Your task to perform on an android device: Search for sushi restaurants on Maps Image 0: 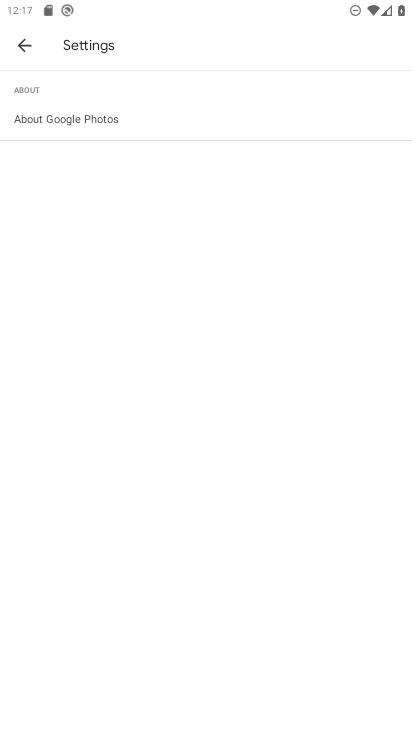
Step 0: click (22, 47)
Your task to perform on an android device: Search for sushi restaurants on Maps Image 1: 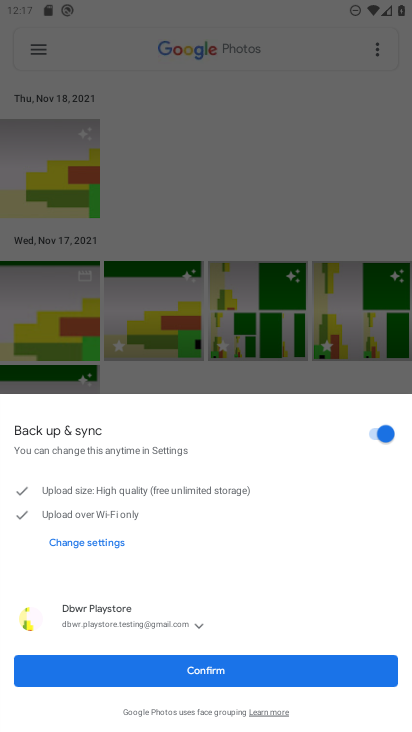
Step 1: press home button
Your task to perform on an android device: Search for sushi restaurants on Maps Image 2: 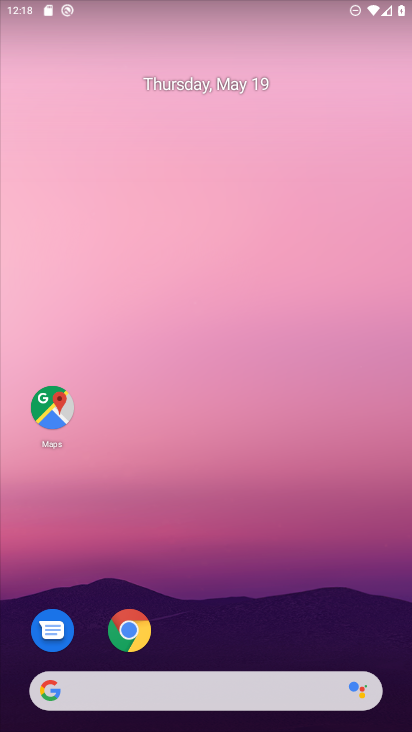
Step 2: drag from (169, 638) to (247, 251)
Your task to perform on an android device: Search for sushi restaurants on Maps Image 3: 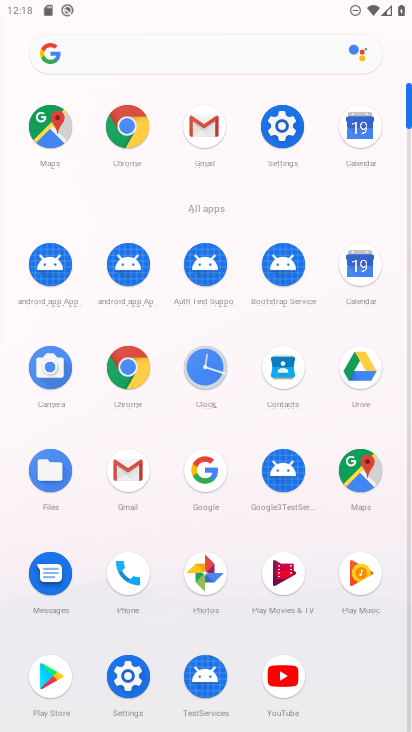
Step 3: click (280, 679)
Your task to perform on an android device: Search for sushi restaurants on Maps Image 4: 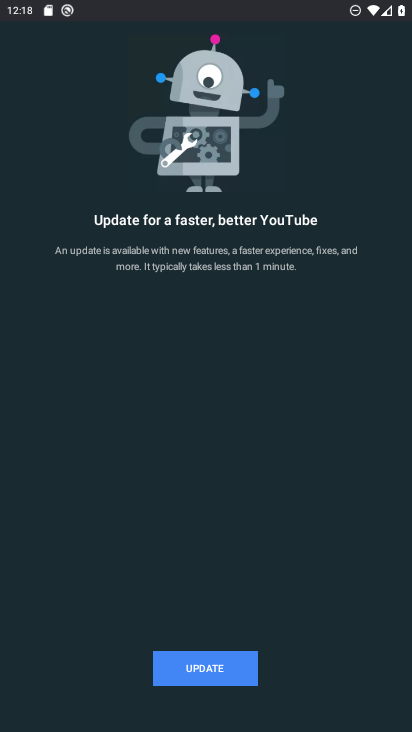
Step 4: press home button
Your task to perform on an android device: Search for sushi restaurants on Maps Image 5: 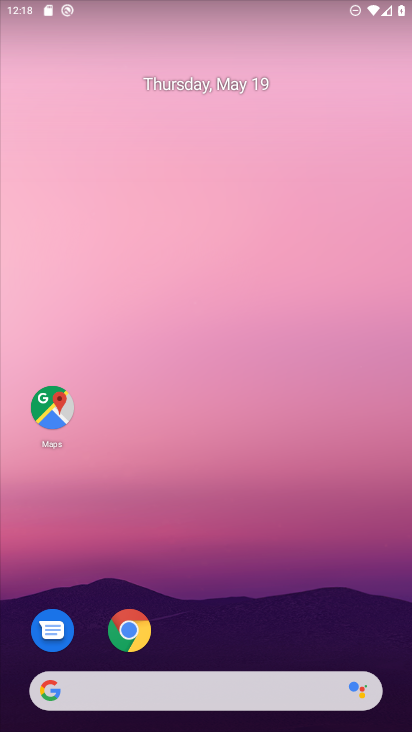
Step 5: click (48, 408)
Your task to perform on an android device: Search for sushi restaurants on Maps Image 6: 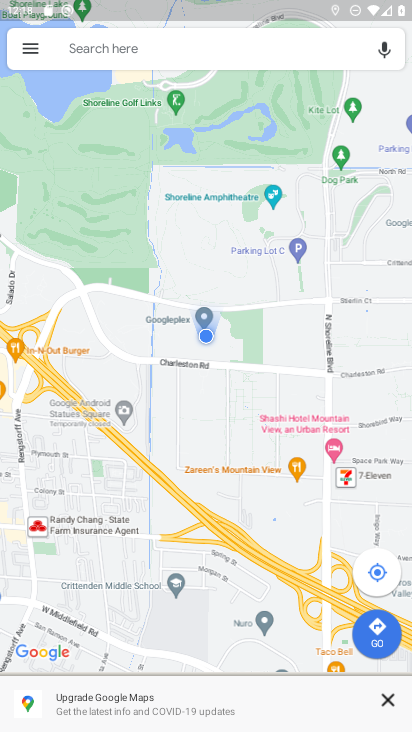
Step 6: click (184, 43)
Your task to perform on an android device: Search for sushi restaurants on Maps Image 7: 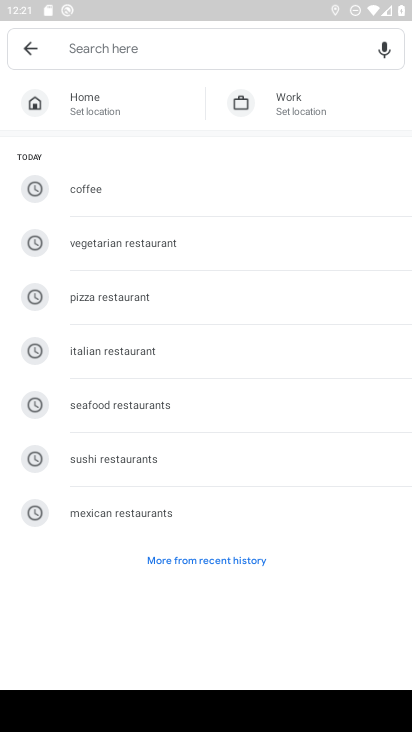
Step 7: type "sushi restaurants o"
Your task to perform on an android device: Search for sushi restaurants on Maps Image 8: 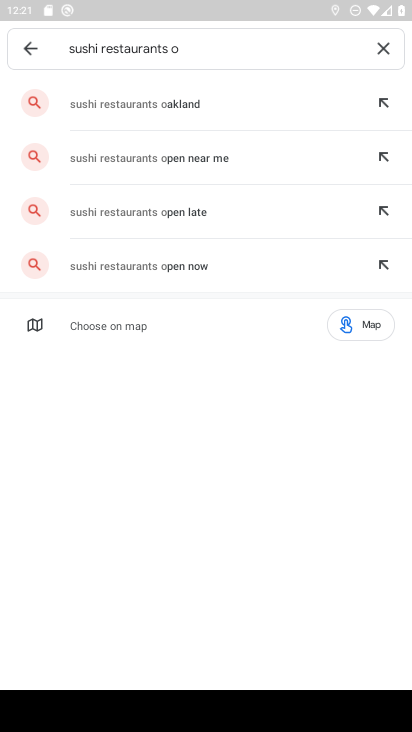
Step 8: click (127, 267)
Your task to perform on an android device: Search for sushi restaurants on Maps Image 9: 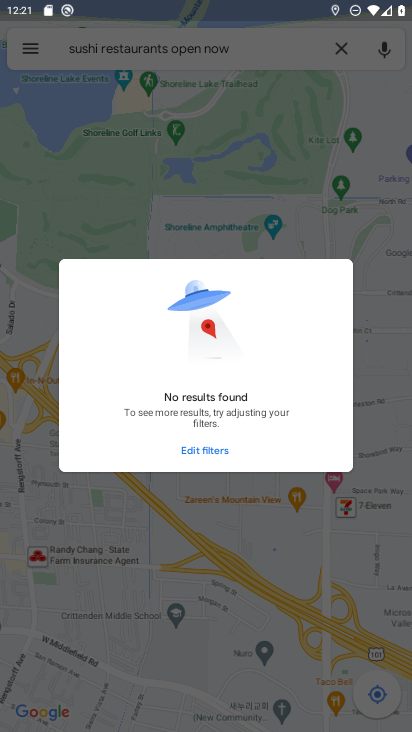
Step 9: task complete